Your task to perform on an android device: turn on the 12-hour format for clock Image 0: 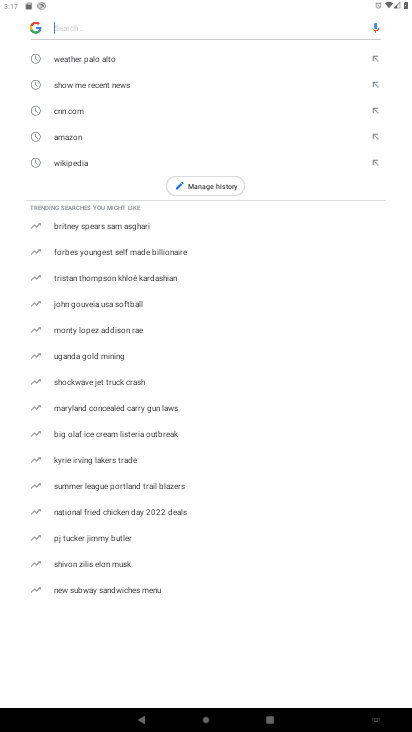
Step 0: press back button
Your task to perform on an android device: turn on the 12-hour format for clock Image 1: 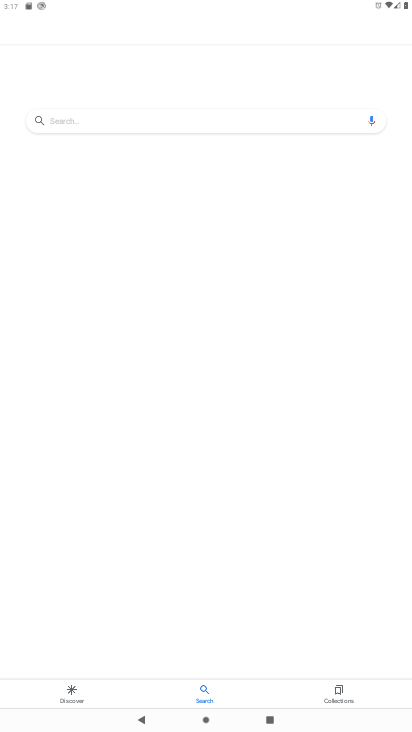
Step 1: press back button
Your task to perform on an android device: turn on the 12-hour format for clock Image 2: 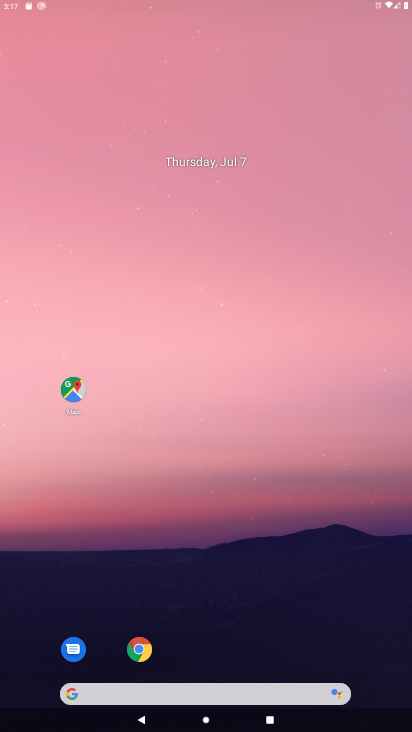
Step 2: press home button
Your task to perform on an android device: turn on the 12-hour format for clock Image 3: 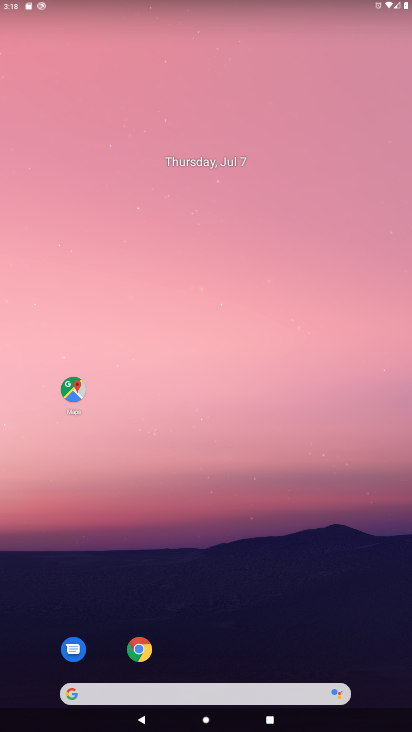
Step 3: drag from (210, 626) to (294, 69)
Your task to perform on an android device: turn on the 12-hour format for clock Image 4: 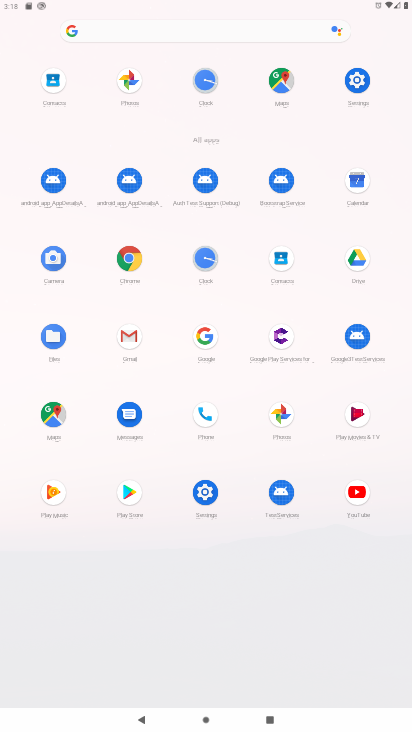
Step 4: click (202, 251)
Your task to perform on an android device: turn on the 12-hour format for clock Image 5: 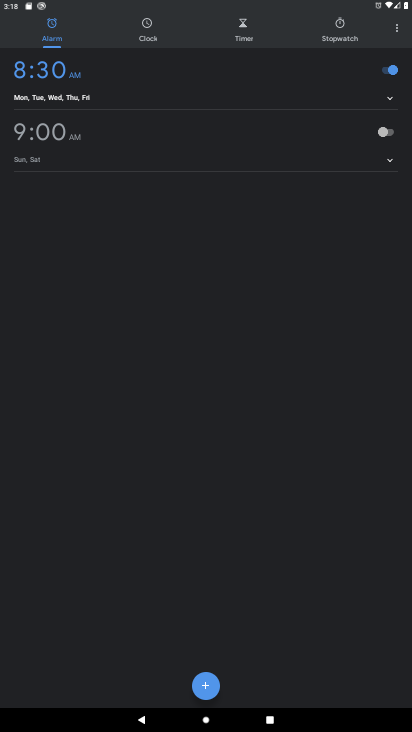
Step 5: click (401, 26)
Your task to perform on an android device: turn on the 12-hour format for clock Image 6: 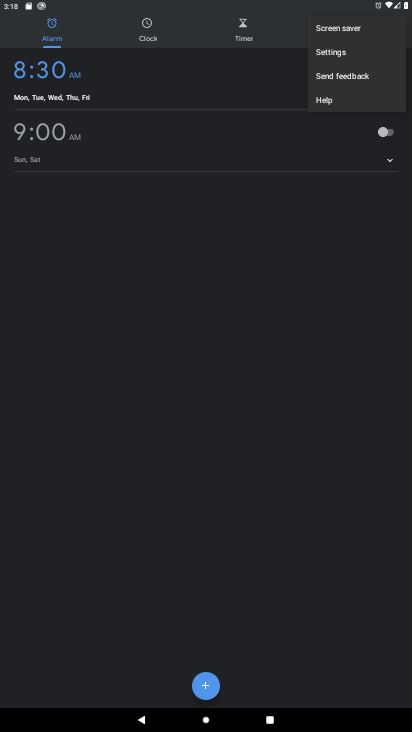
Step 6: click (324, 47)
Your task to perform on an android device: turn on the 12-hour format for clock Image 7: 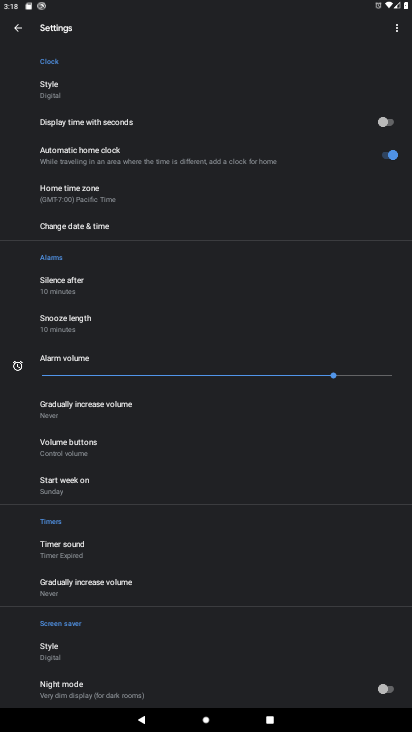
Step 7: click (97, 223)
Your task to perform on an android device: turn on the 12-hour format for clock Image 8: 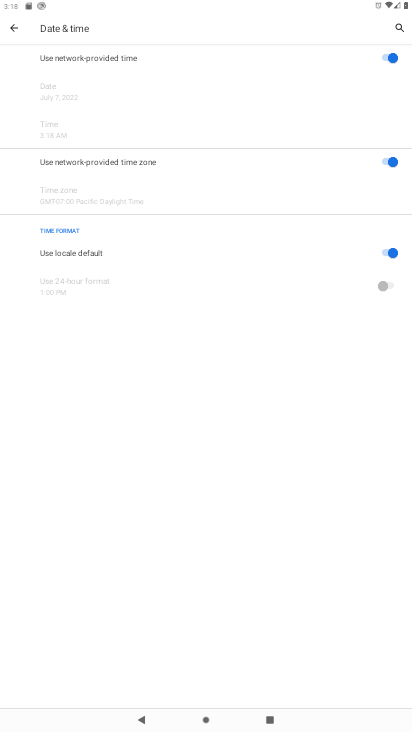
Step 8: task complete